Your task to perform on an android device: Open Chrome and go to settings Image 0: 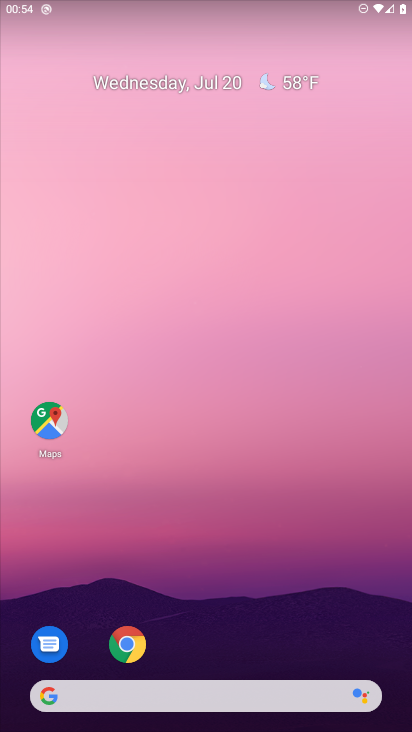
Step 0: click (136, 664)
Your task to perform on an android device: Open Chrome and go to settings Image 1: 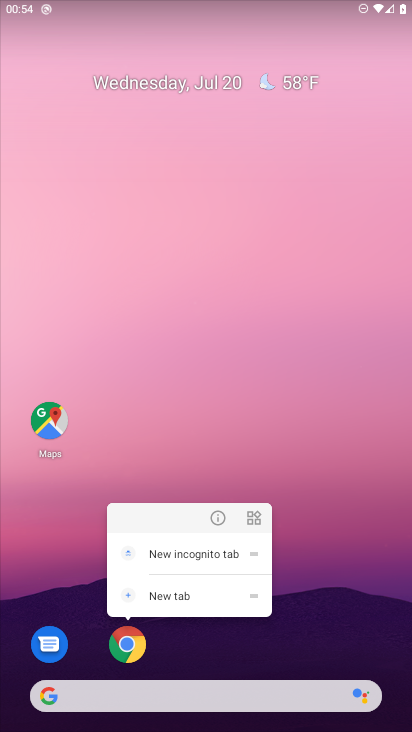
Step 1: click (136, 659)
Your task to perform on an android device: Open Chrome and go to settings Image 2: 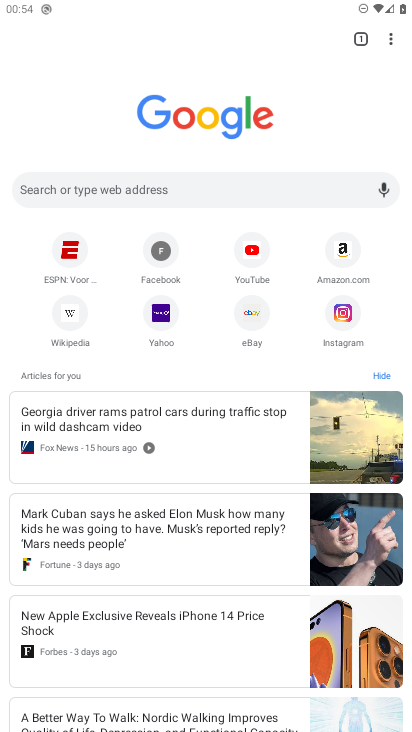
Step 2: click (384, 26)
Your task to perform on an android device: Open Chrome and go to settings Image 3: 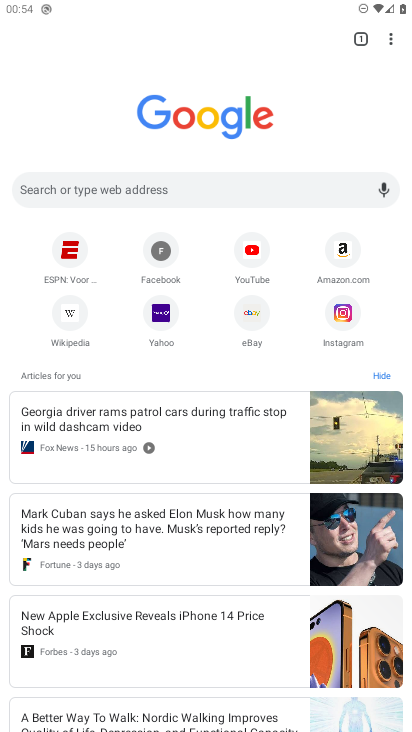
Step 3: click (391, 40)
Your task to perform on an android device: Open Chrome and go to settings Image 4: 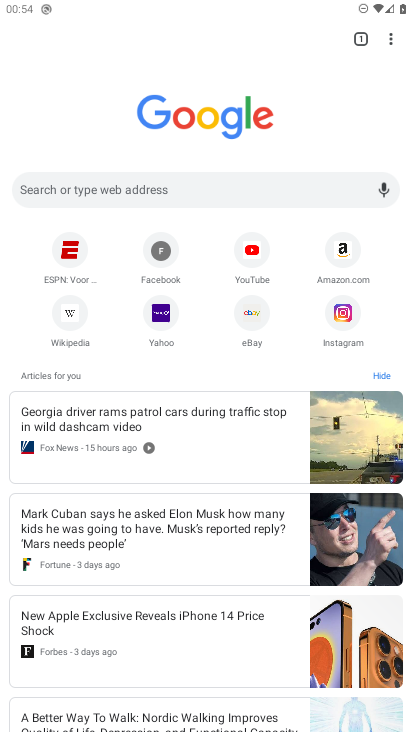
Step 4: click (393, 39)
Your task to perform on an android device: Open Chrome and go to settings Image 5: 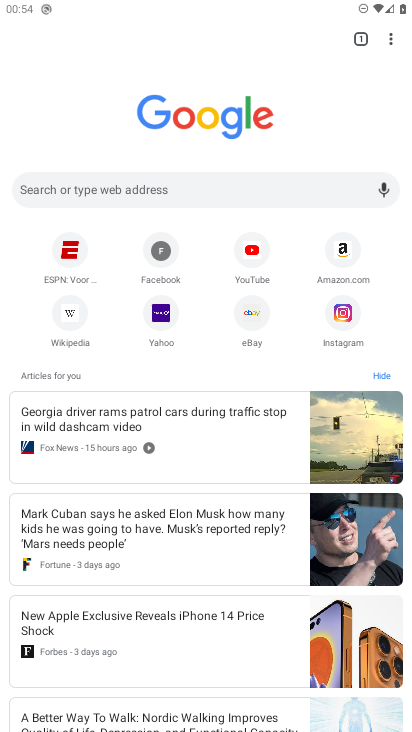
Step 5: click (393, 39)
Your task to perform on an android device: Open Chrome and go to settings Image 6: 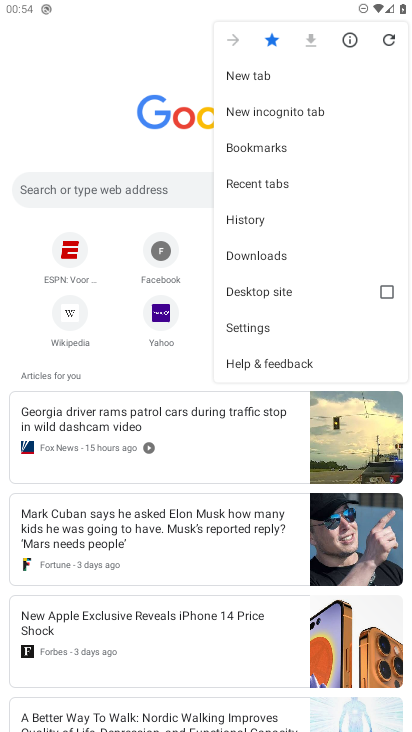
Step 6: click (237, 327)
Your task to perform on an android device: Open Chrome and go to settings Image 7: 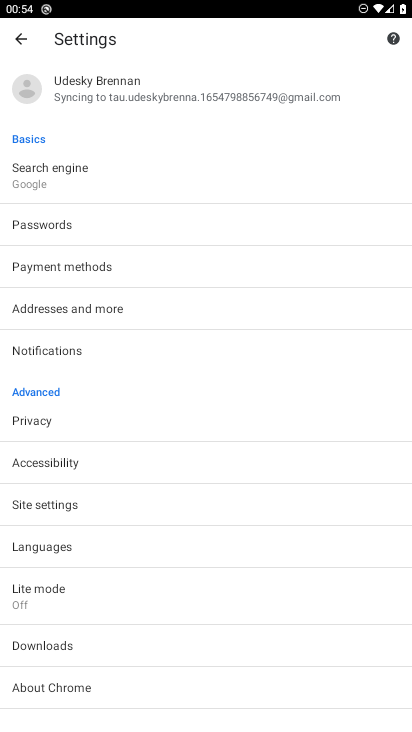
Step 7: task complete